Your task to perform on an android device: search for starred emails in the gmail app Image 0: 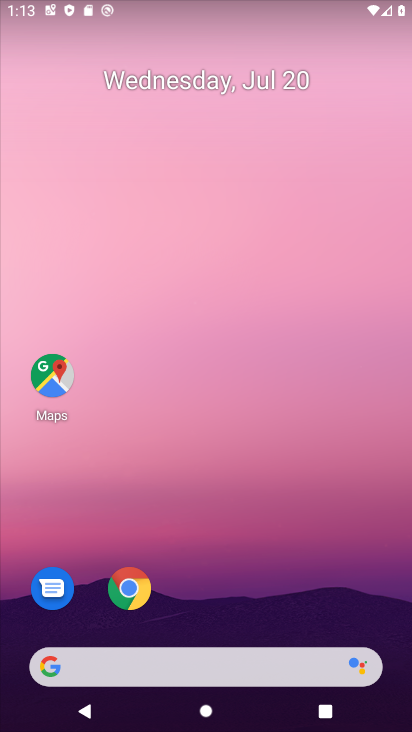
Step 0: drag from (396, 656) to (276, 63)
Your task to perform on an android device: search for starred emails in the gmail app Image 1: 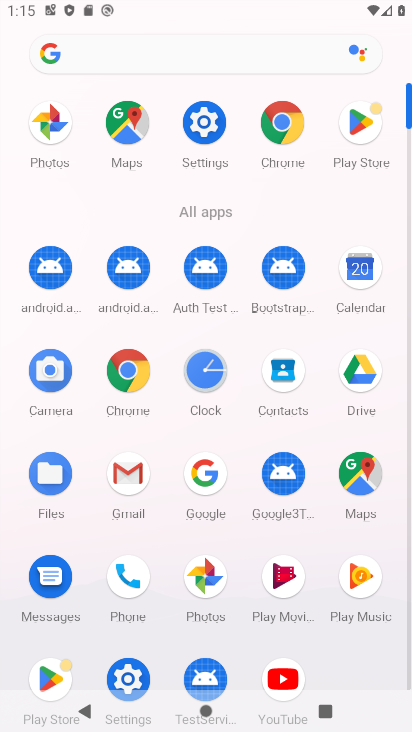
Step 1: click (118, 478)
Your task to perform on an android device: search for starred emails in the gmail app Image 2: 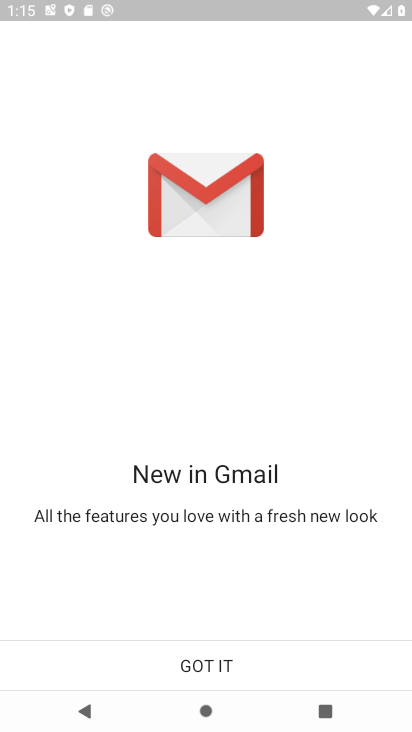
Step 2: click (205, 671)
Your task to perform on an android device: search for starred emails in the gmail app Image 3: 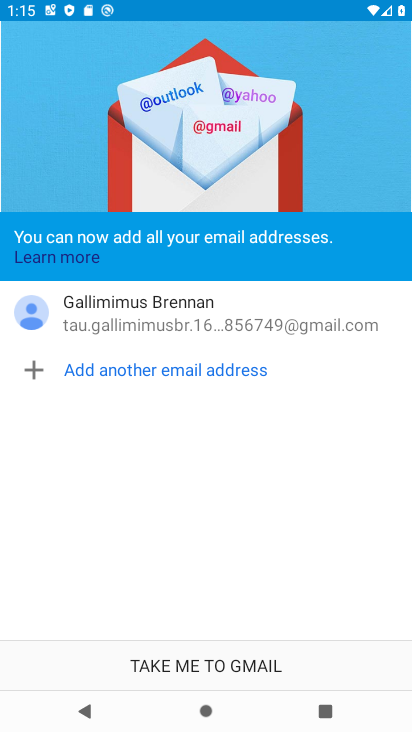
Step 3: click (205, 671)
Your task to perform on an android device: search for starred emails in the gmail app Image 4: 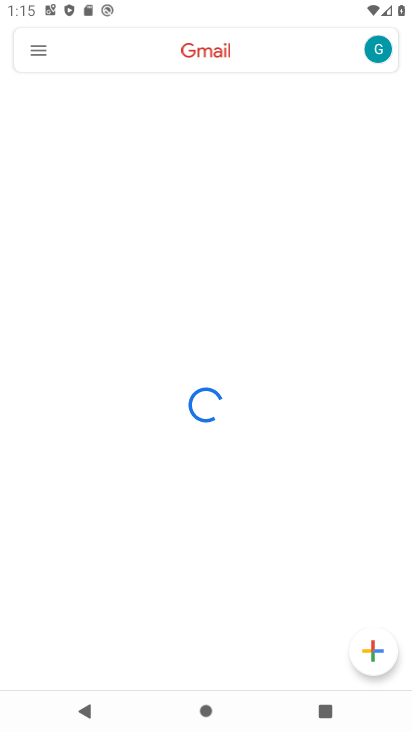
Step 4: click (32, 55)
Your task to perform on an android device: search for starred emails in the gmail app Image 5: 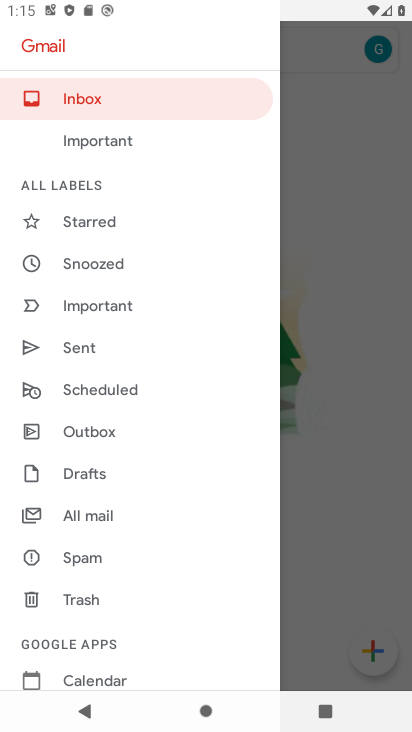
Step 5: click (104, 208)
Your task to perform on an android device: search for starred emails in the gmail app Image 6: 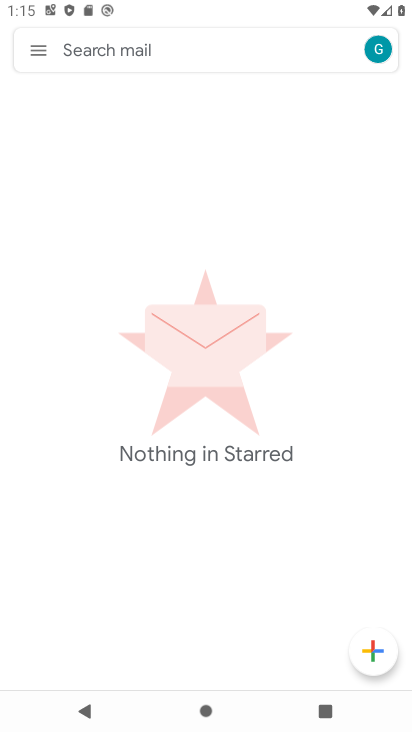
Step 6: task complete